Your task to perform on an android device: turn off translation in the chrome app Image 0: 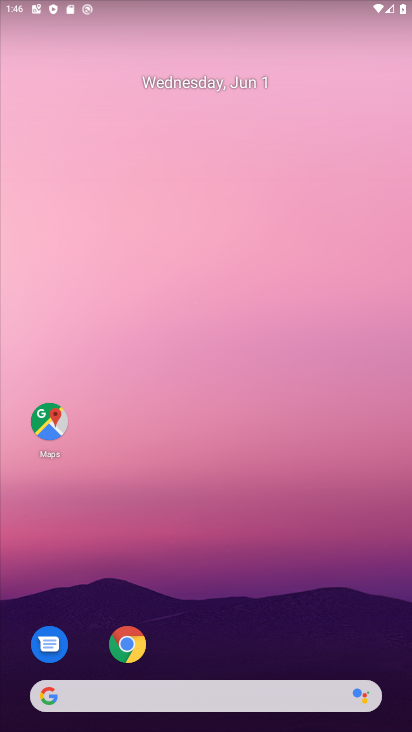
Step 0: click (126, 646)
Your task to perform on an android device: turn off translation in the chrome app Image 1: 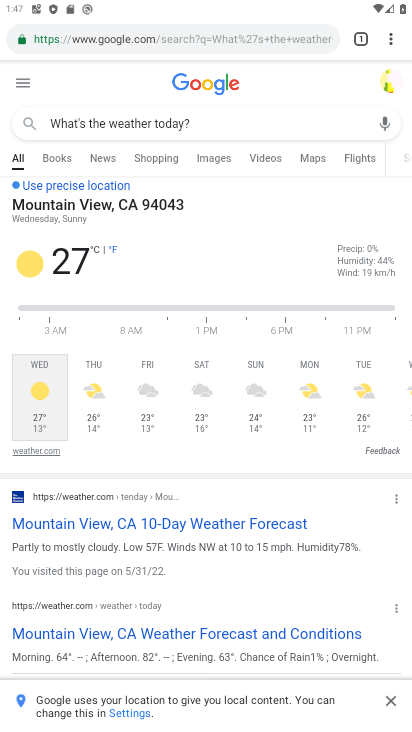
Step 1: click (392, 41)
Your task to perform on an android device: turn off translation in the chrome app Image 2: 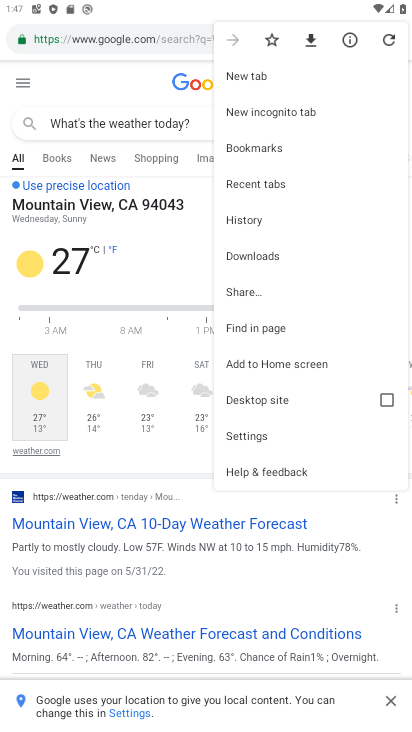
Step 2: click (254, 436)
Your task to perform on an android device: turn off translation in the chrome app Image 3: 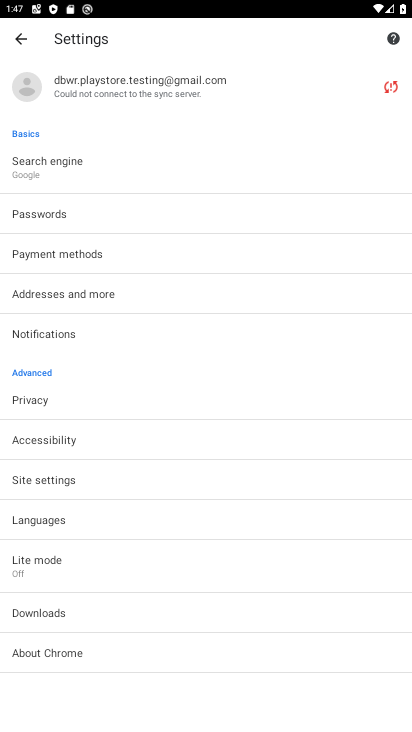
Step 3: click (53, 525)
Your task to perform on an android device: turn off translation in the chrome app Image 4: 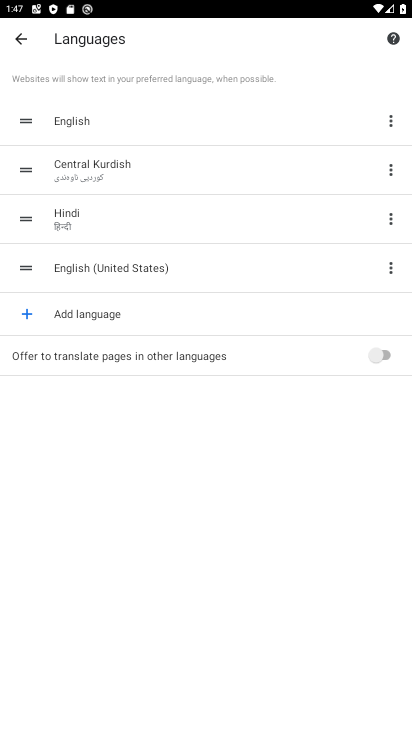
Step 4: task complete